Your task to perform on an android device: allow cookies in the chrome app Image 0: 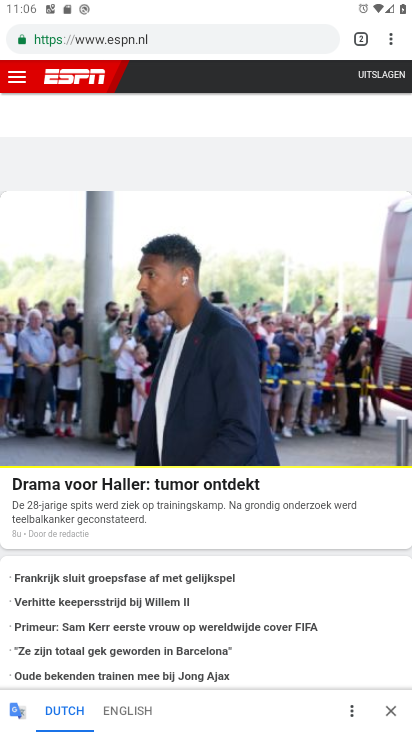
Step 0: press home button
Your task to perform on an android device: allow cookies in the chrome app Image 1: 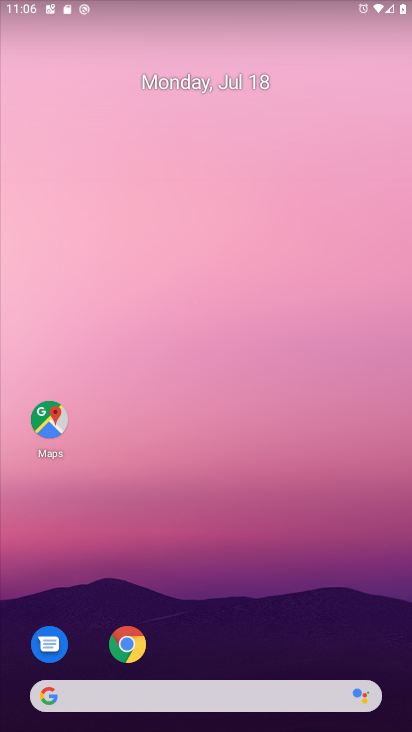
Step 1: click (141, 638)
Your task to perform on an android device: allow cookies in the chrome app Image 2: 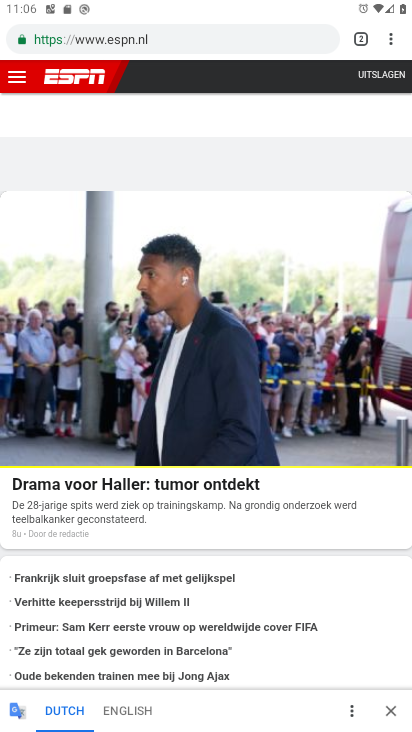
Step 2: click (395, 49)
Your task to perform on an android device: allow cookies in the chrome app Image 3: 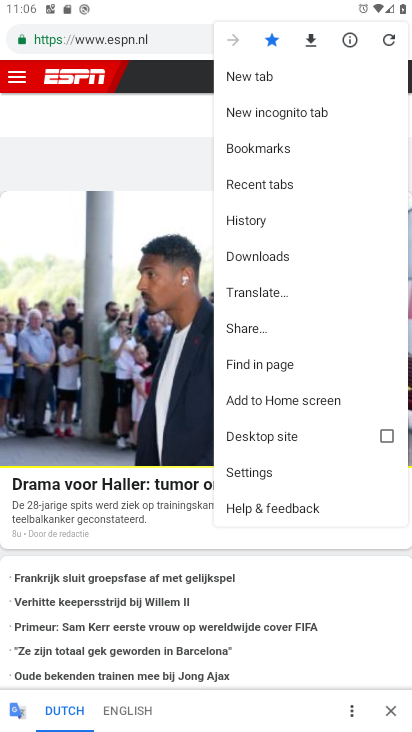
Step 3: click (266, 473)
Your task to perform on an android device: allow cookies in the chrome app Image 4: 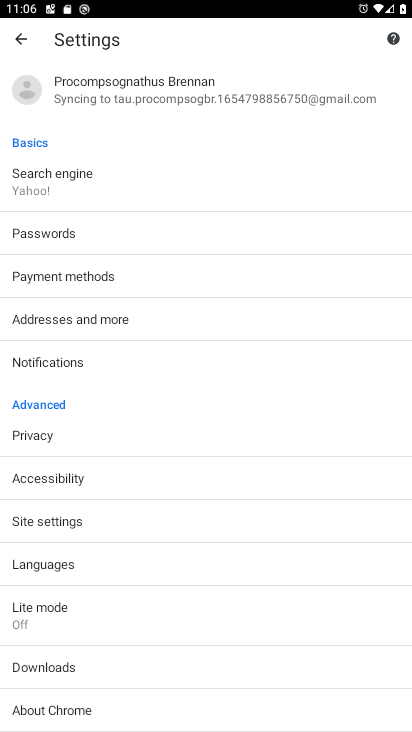
Step 4: task complete